Your task to perform on an android device: add a contact in the contacts app Image 0: 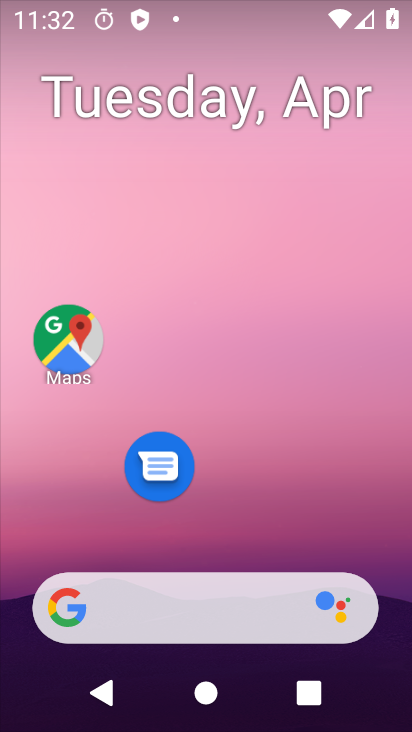
Step 0: drag from (302, 535) to (173, 40)
Your task to perform on an android device: add a contact in the contacts app Image 1: 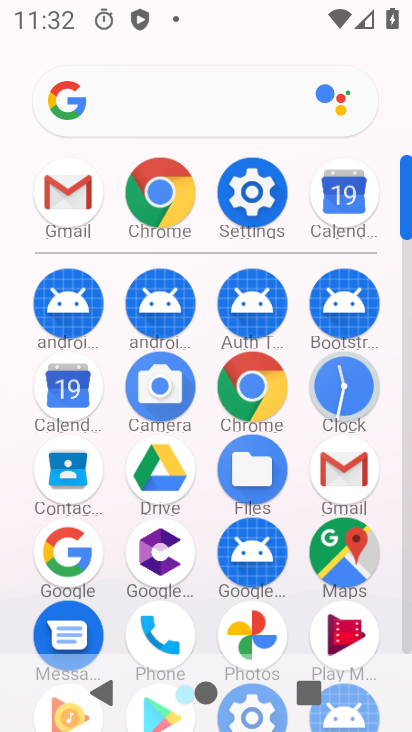
Step 1: click (63, 479)
Your task to perform on an android device: add a contact in the contacts app Image 2: 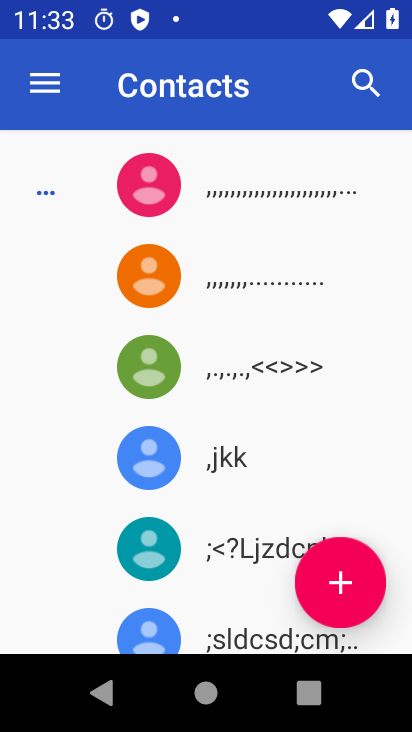
Step 2: click (329, 595)
Your task to perform on an android device: add a contact in the contacts app Image 3: 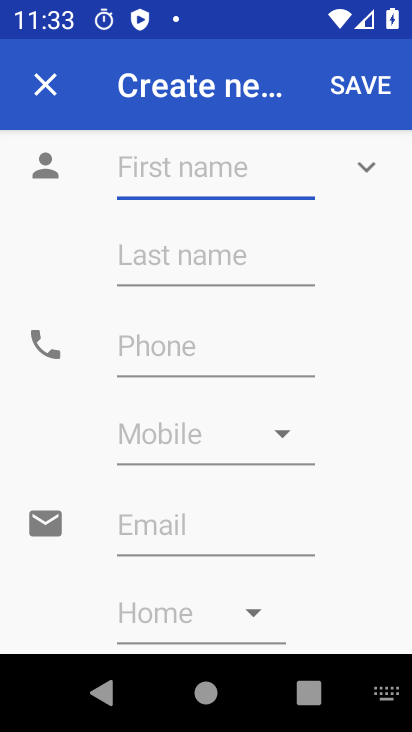
Step 3: type "kbj"
Your task to perform on an android device: add a contact in the contacts app Image 4: 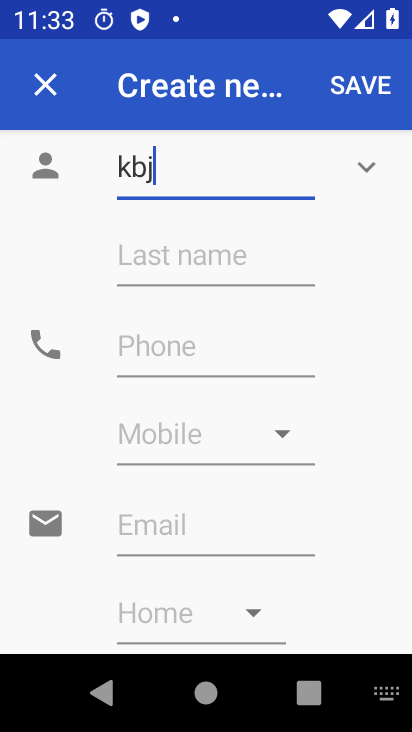
Step 4: click (299, 254)
Your task to perform on an android device: add a contact in the contacts app Image 5: 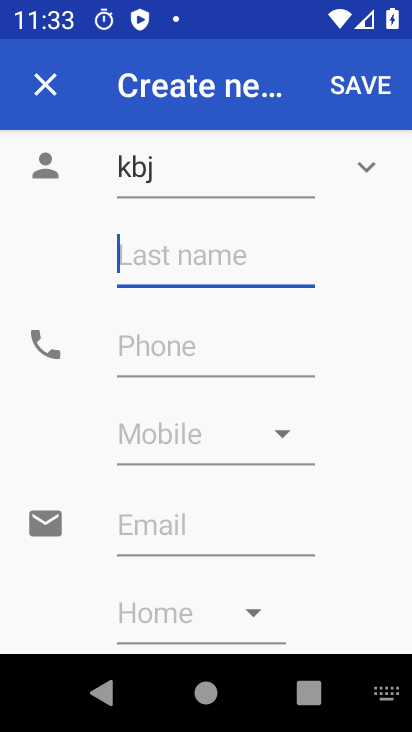
Step 5: type "nbb n n"
Your task to perform on an android device: add a contact in the contacts app Image 6: 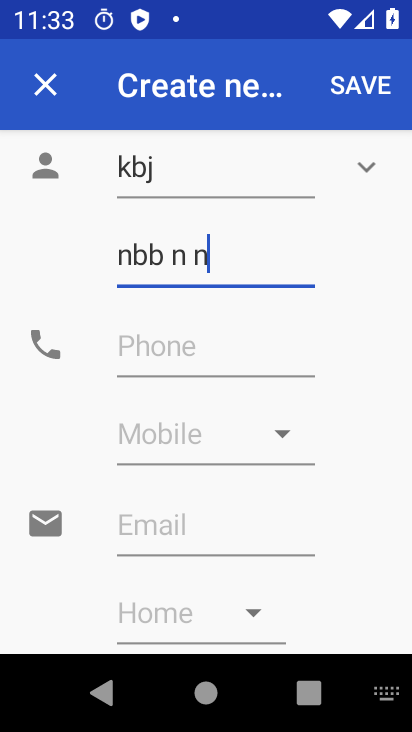
Step 6: click (223, 355)
Your task to perform on an android device: add a contact in the contacts app Image 7: 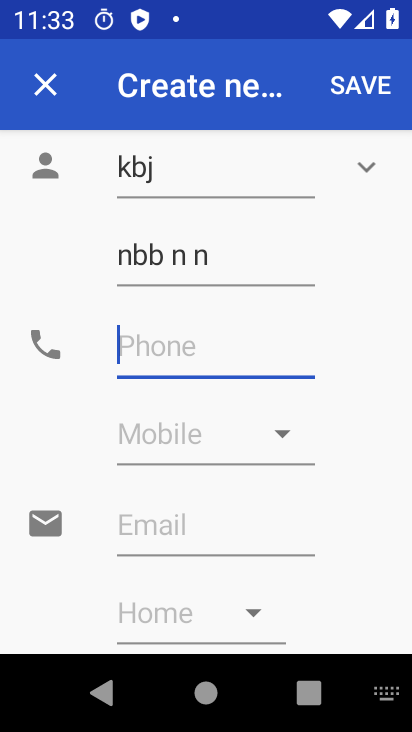
Step 7: type "76566t768"
Your task to perform on an android device: add a contact in the contacts app Image 8: 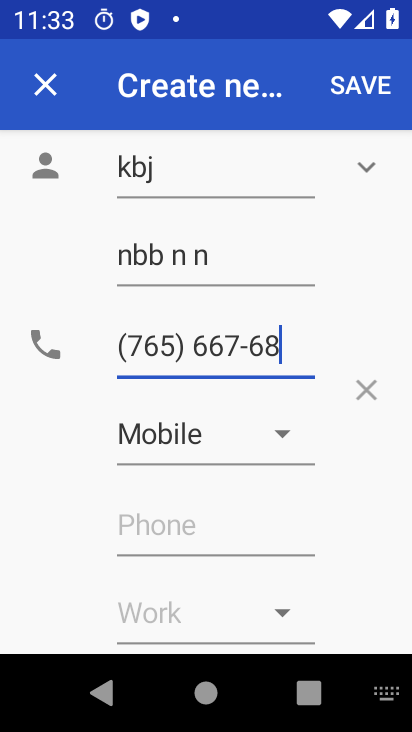
Step 8: click (383, 88)
Your task to perform on an android device: add a contact in the contacts app Image 9: 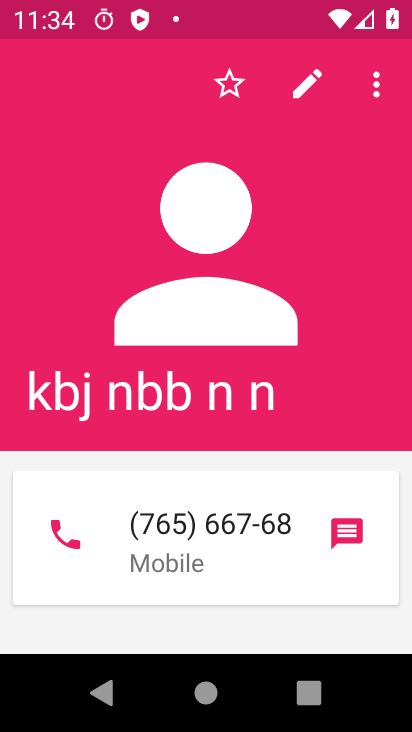
Step 9: task complete